Your task to perform on an android device: Open the web browser Image 0: 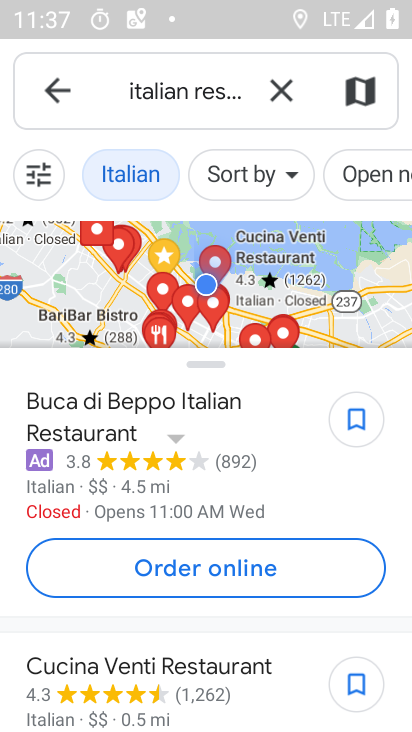
Step 0: press home button
Your task to perform on an android device: Open the web browser Image 1: 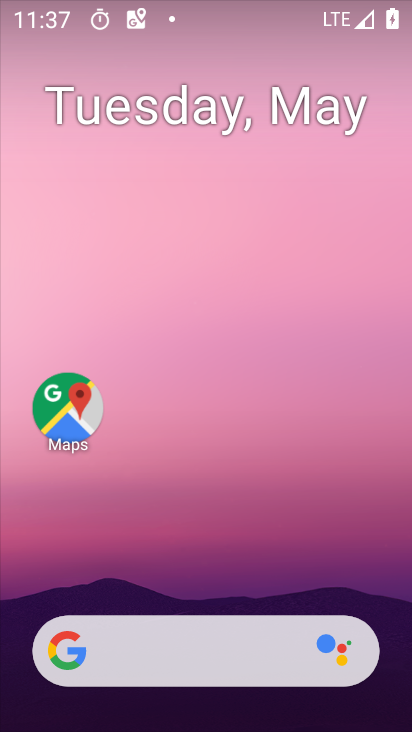
Step 1: drag from (198, 626) to (235, 183)
Your task to perform on an android device: Open the web browser Image 2: 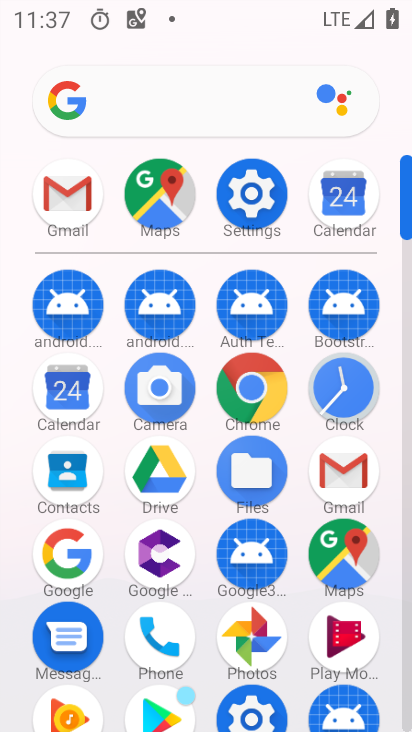
Step 2: click (257, 399)
Your task to perform on an android device: Open the web browser Image 3: 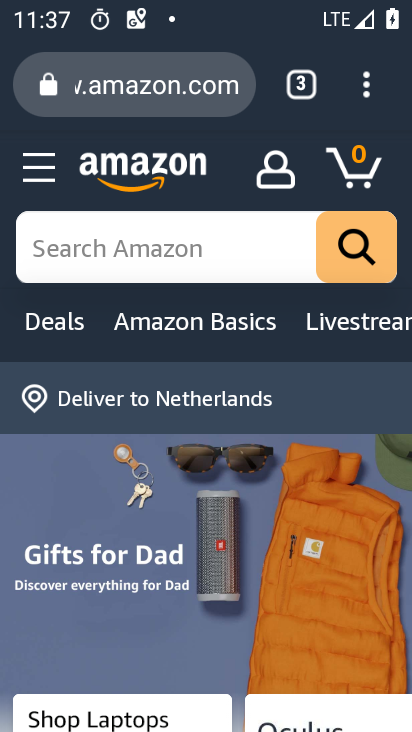
Step 3: task complete